Your task to perform on an android device: Toggle the flashlight Image 0: 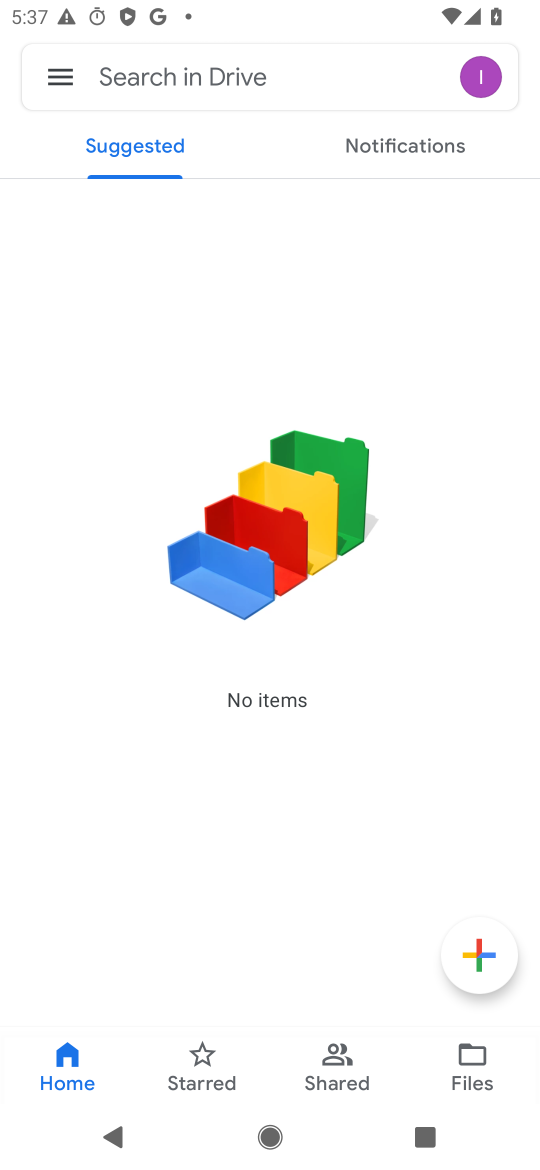
Step 0: press home button
Your task to perform on an android device: Toggle the flashlight Image 1: 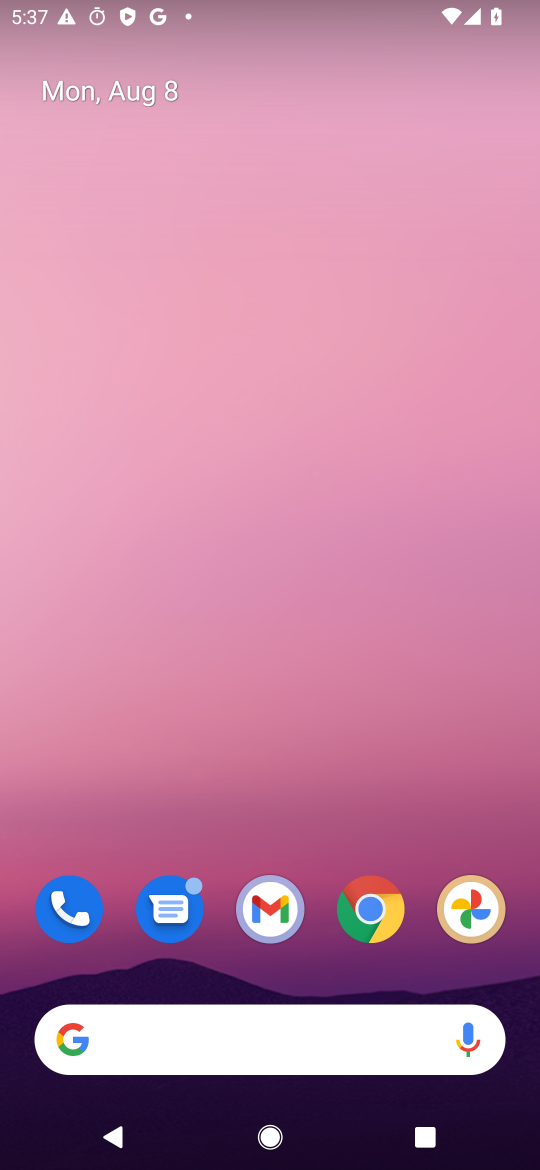
Step 1: drag from (319, 555) to (301, 743)
Your task to perform on an android device: Toggle the flashlight Image 2: 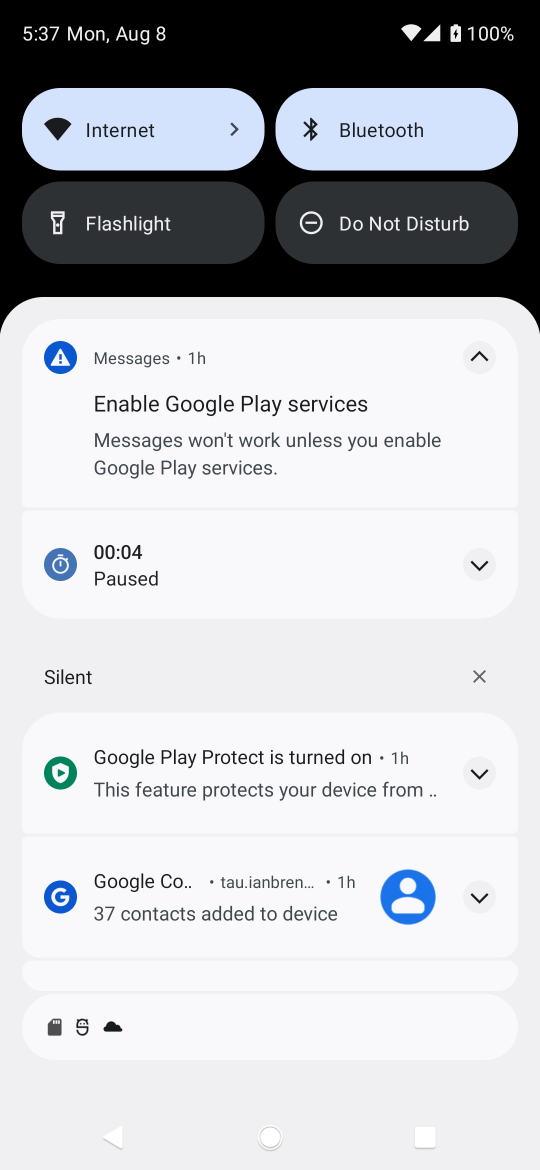
Step 2: click (188, 241)
Your task to perform on an android device: Toggle the flashlight Image 3: 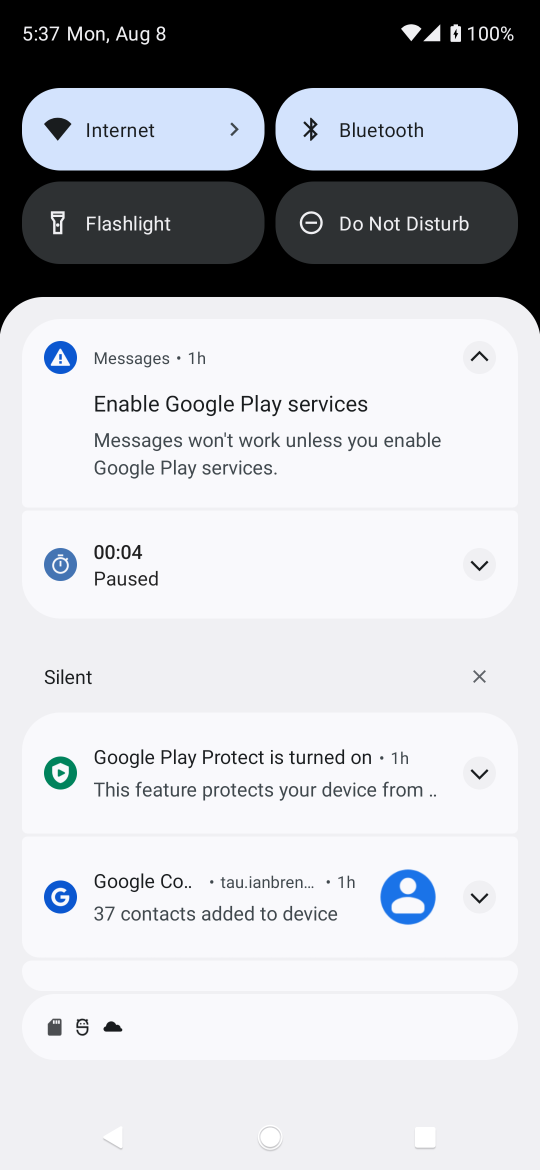
Step 3: task complete